Your task to perform on an android device: Open calendar and show me the second week of next month Image 0: 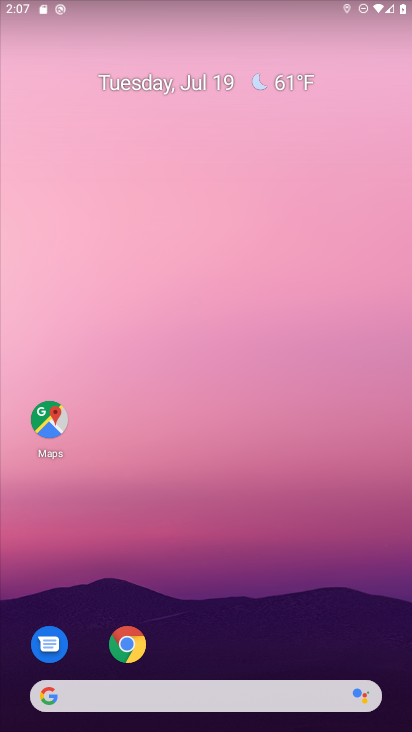
Step 0: drag from (207, 661) to (191, 61)
Your task to perform on an android device: Open calendar and show me the second week of next month Image 1: 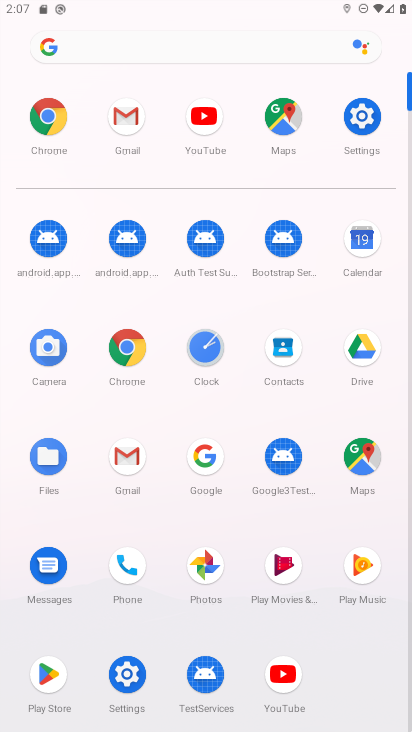
Step 1: click (360, 226)
Your task to perform on an android device: Open calendar and show me the second week of next month Image 2: 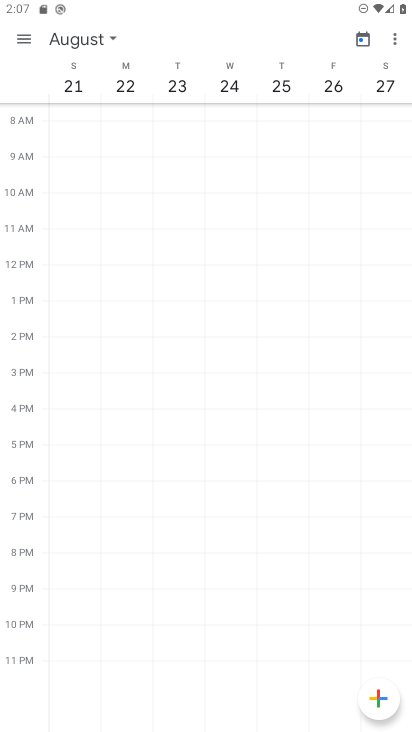
Step 2: task complete